Your task to perform on an android device: turn on translation in the chrome app Image 0: 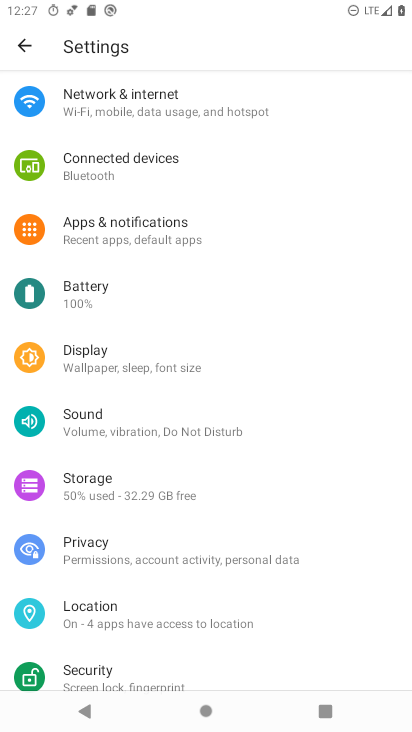
Step 0: press home button
Your task to perform on an android device: turn on translation in the chrome app Image 1: 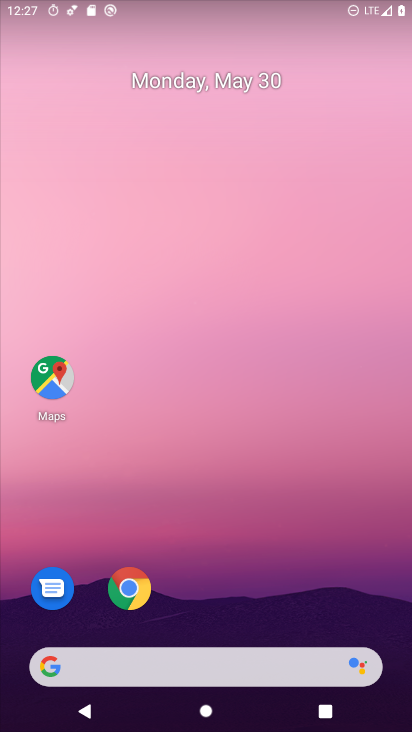
Step 1: drag from (218, 564) to (275, 145)
Your task to perform on an android device: turn on translation in the chrome app Image 2: 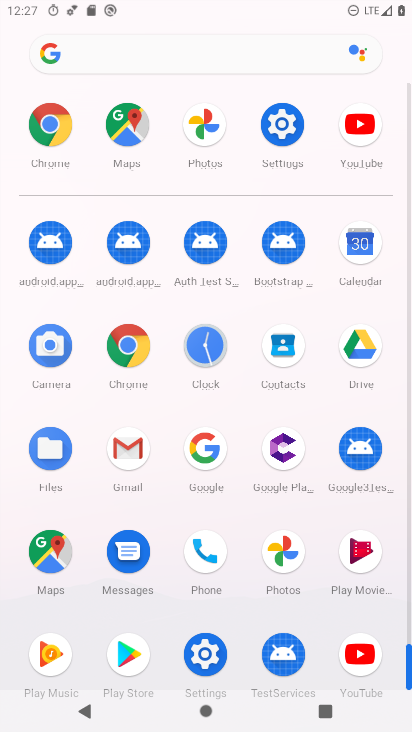
Step 2: click (141, 355)
Your task to perform on an android device: turn on translation in the chrome app Image 3: 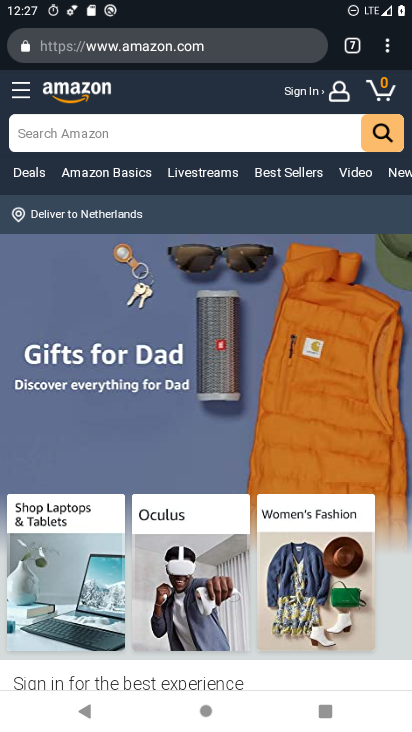
Step 3: click (391, 47)
Your task to perform on an android device: turn on translation in the chrome app Image 4: 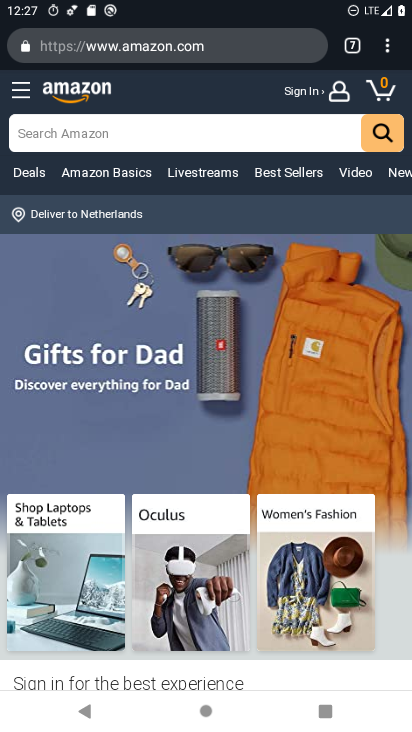
Step 4: click (382, 52)
Your task to perform on an android device: turn on translation in the chrome app Image 5: 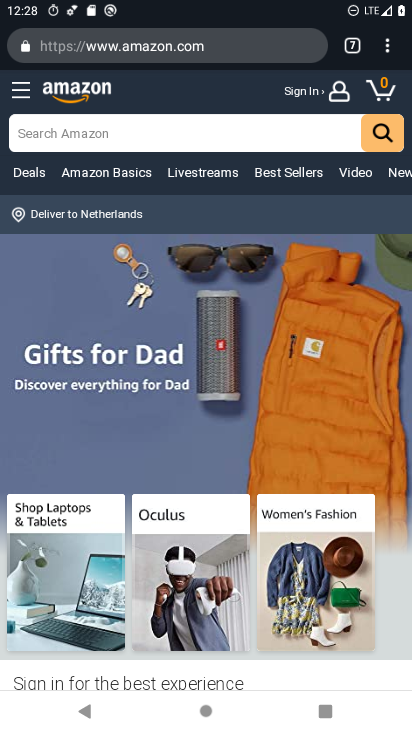
Step 5: click (394, 50)
Your task to perform on an android device: turn on translation in the chrome app Image 6: 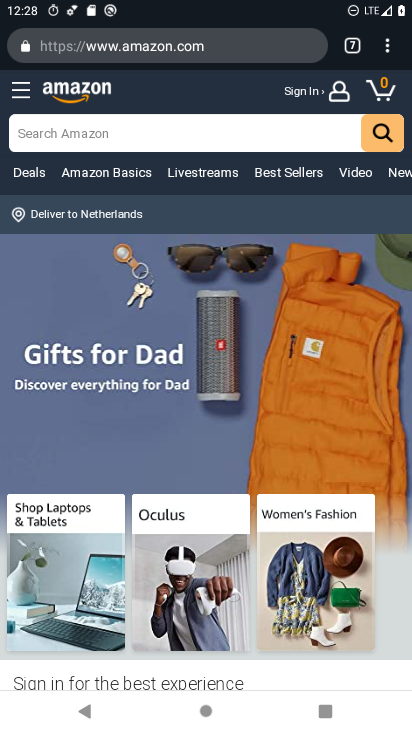
Step 6: click (384, 50)
Your task to perform on an android device: turn on translation in the chrome app Image 7: 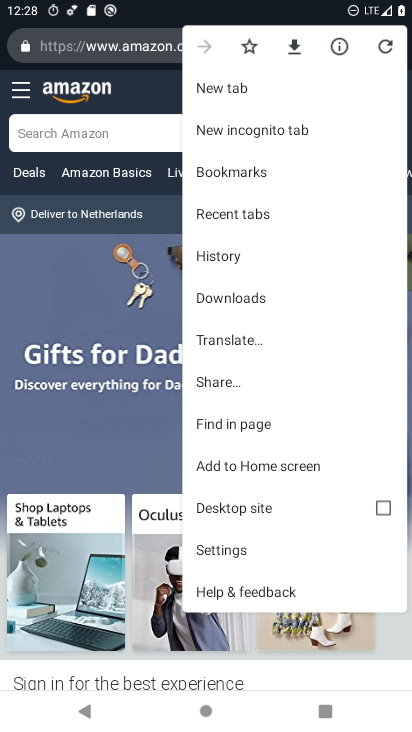
Step 7: click (261, 552)
Your task to perform on an android device: turn on translation in the chrome app Image 8: 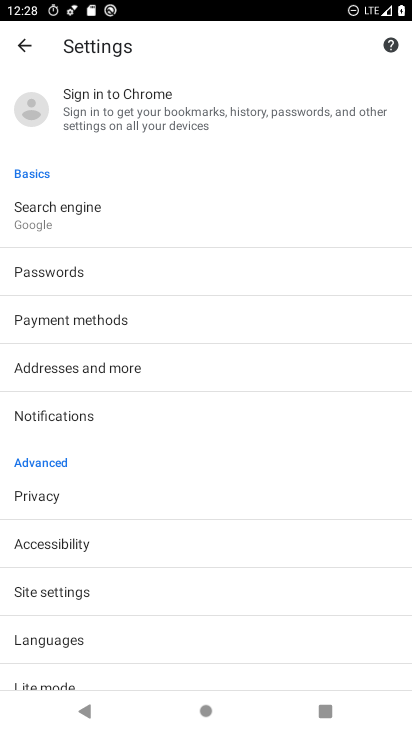
Step 8: drag from (139, 591) to (179, 307)
Your task to perform on an android device: turn on translation in the chrome app Image 9: 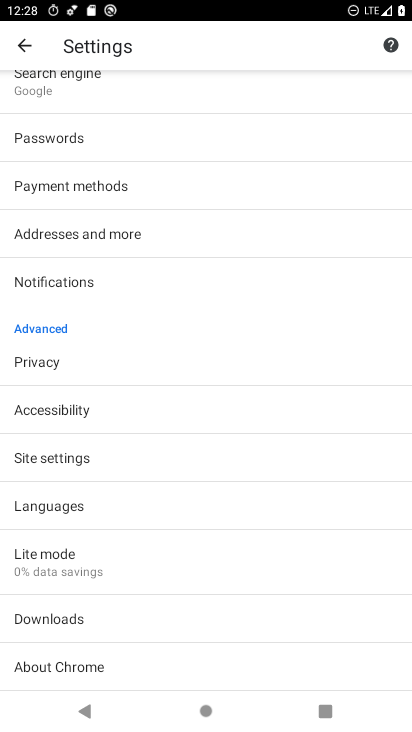
Step 9: click (121, 515)
Your task to perform on an android device: turn on translation in the chrome app Image 10: 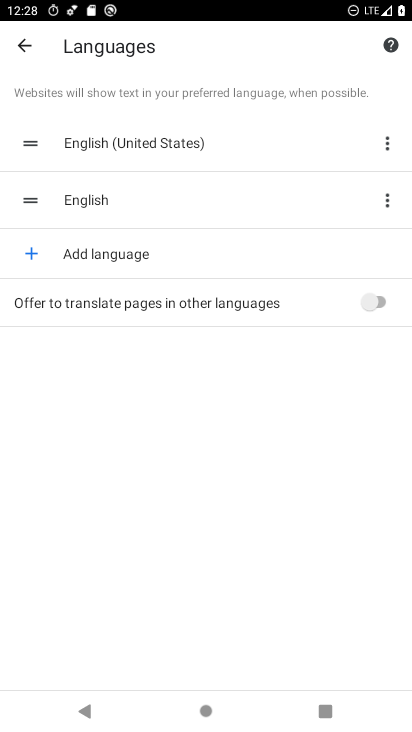
Step 10: click (365, 300)
Your task to perform on an android device: turn on translation in the chrome app Image 11: 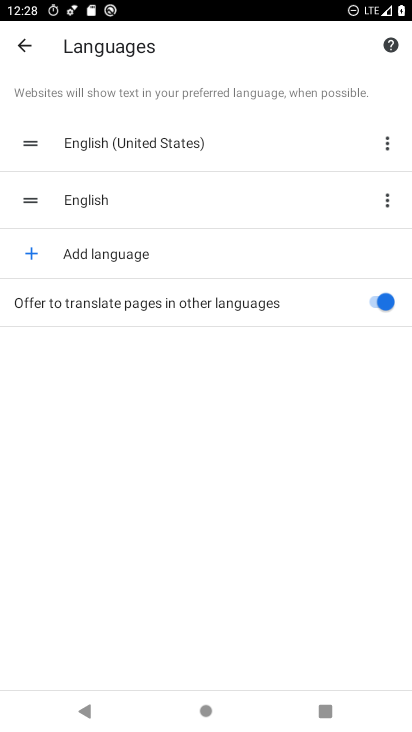
Step 11: task complete